Your task to perform on an android device: turn on location history Image 0: 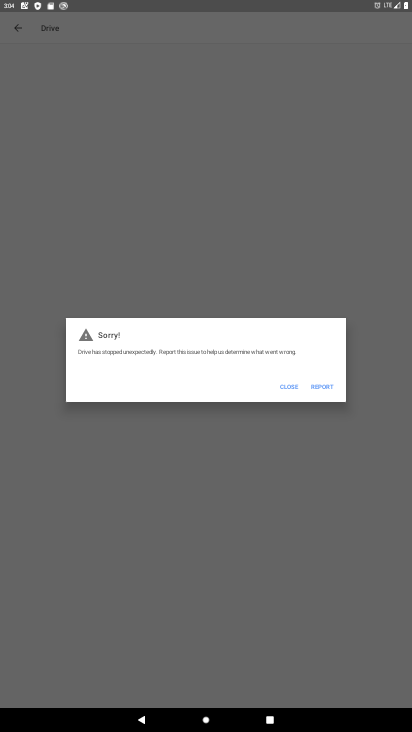
Step 0: press home button
Your task to perform on an android device: turn on location history Image 1: 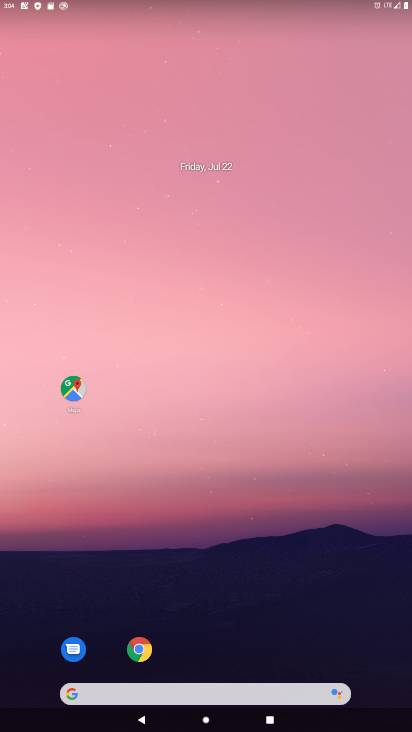
Step 1: drag from (193, 645) to (176, 233)
Your task to perform on an android device: turn on location history Image 2: 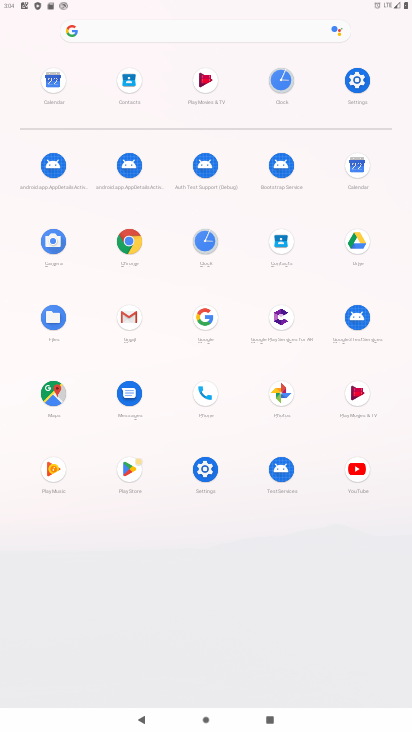
Step 2: click (204, 463)
Your task to perform on an android device: turn on location history Image 3: 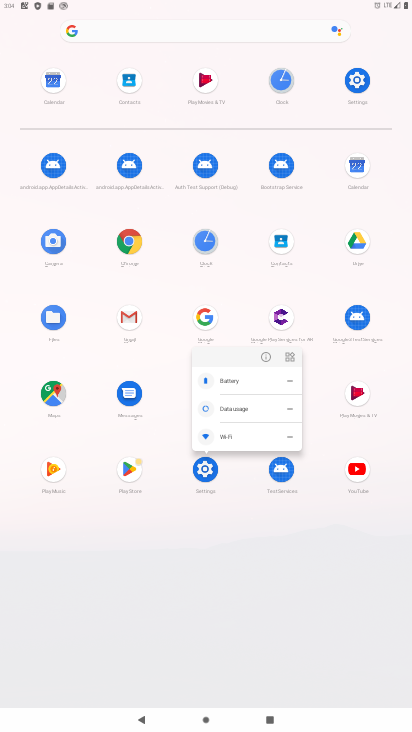
Step 3: click (268, 347)
Your task to perform on an android device: turn on location history Image 4: 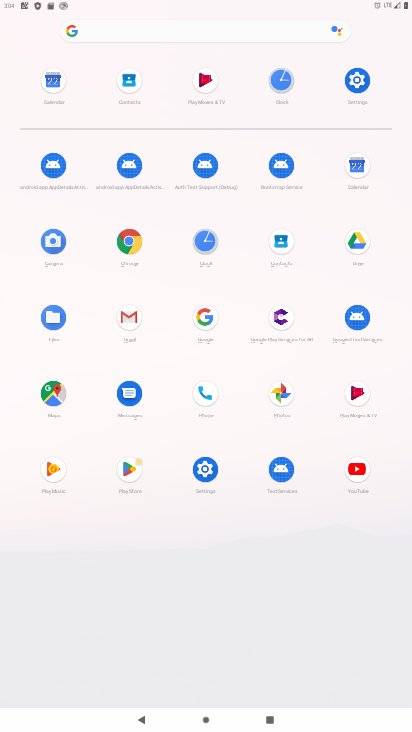
Step 4: click (196, 472)
Your task to perform on an android device: turn on location history Image 5: 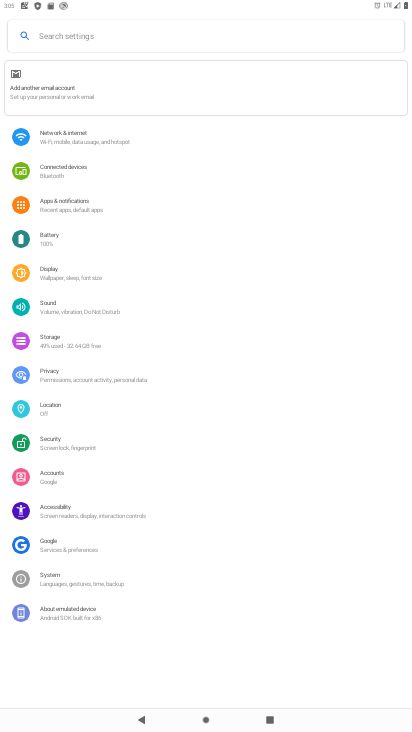
Step 5: click (87, 403)
Your task to perform on an android device: turn on location history Image 6: 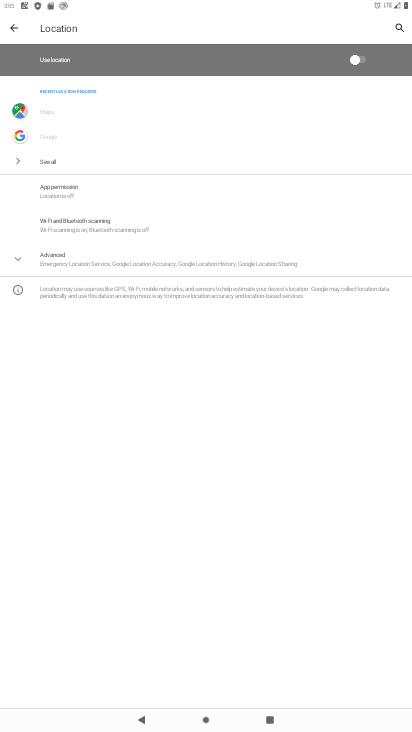
Step 6: click (80, 270)
Your task to perform on an android device: turn on location history Image 7: 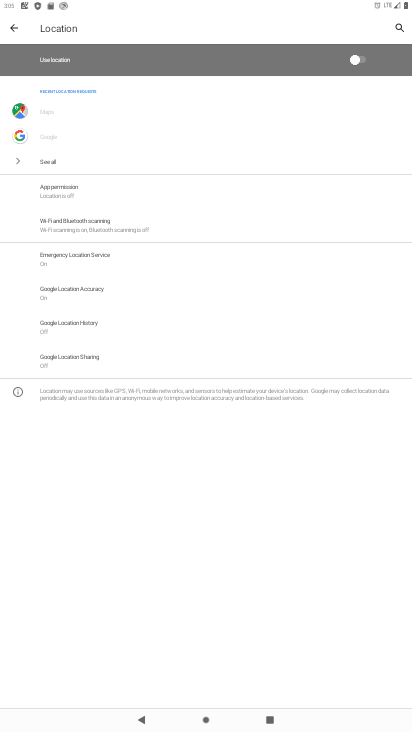
Step 7: click (84, 330)
Your task to perform on an android device: turn on location history Image 8: 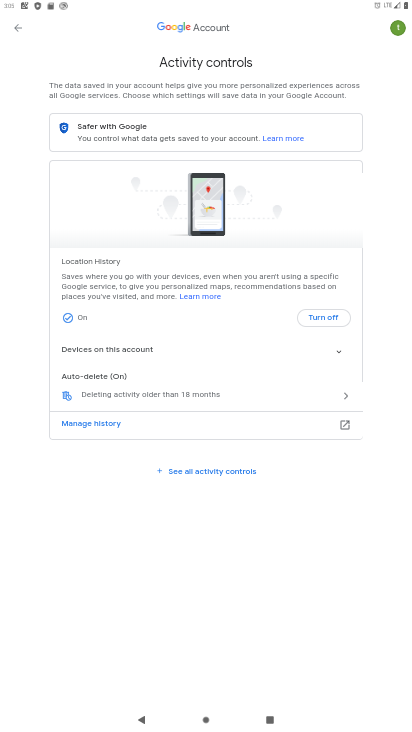
Step 8: task complete